Your task to perform on an android device: What's on my calendar tomorrow? Image 0: 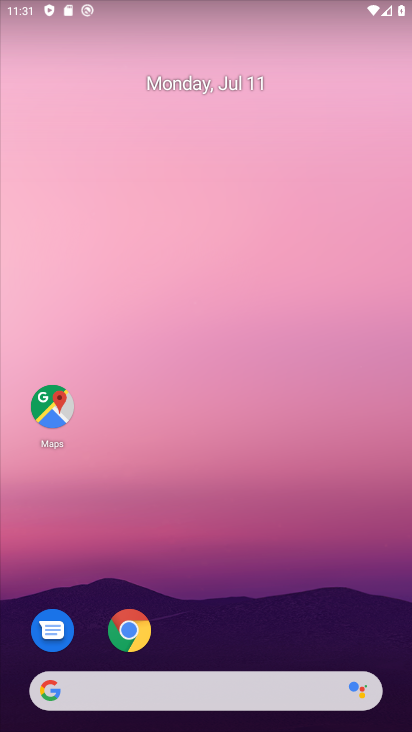
Step 0: drag from (209, 693) to (275, 178)
Your task to perform on an android device: What's on my calendar tomorrow? Image 1: 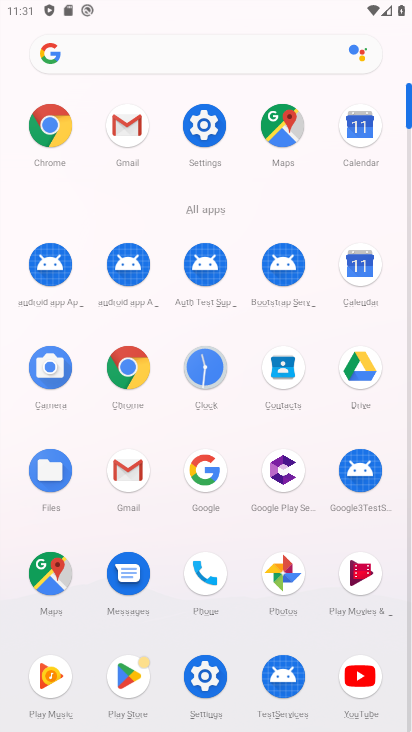
Step 1: click (359, 126)
Your task to perform on an android device: What's on my calendar tomorrow? Image 2: 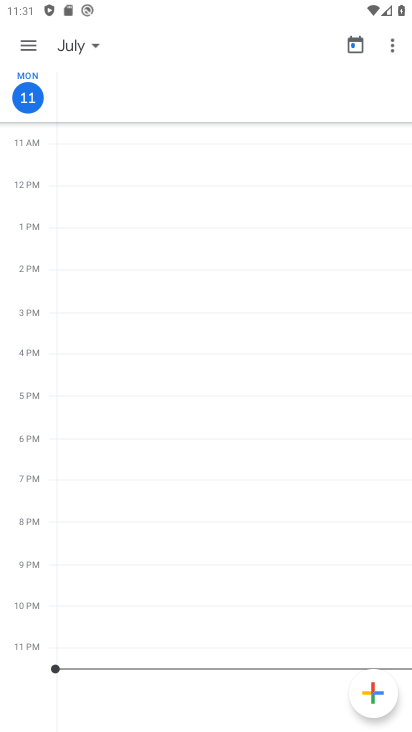
Step 2: click (356, 45)
Your task to perform on an android device: What's on my calendar tomorrow? Image 3: 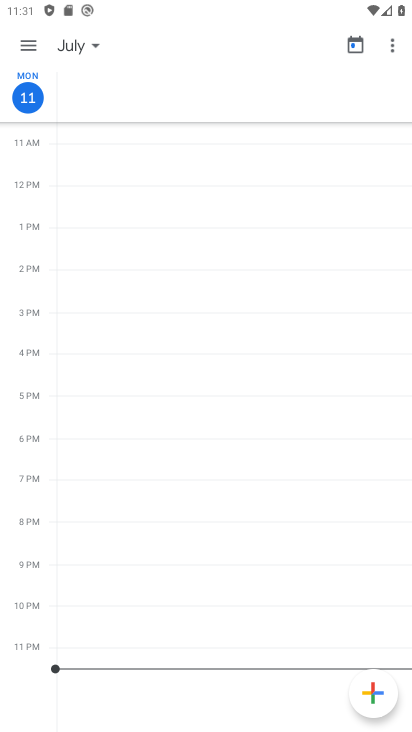
Step 3: click (95, 46)
Your task to perform on an android device: What's on my calendar tomorrow? Image 4: 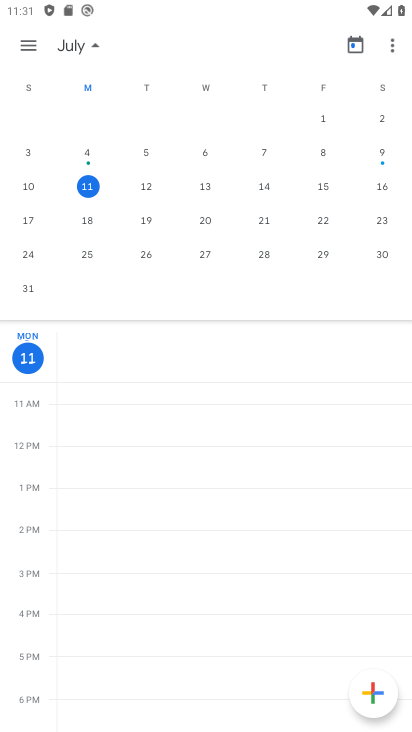
Step 4: click (148, 186)
Your task to perform on an android device: What's on my calendar tomorrow? Image 5: 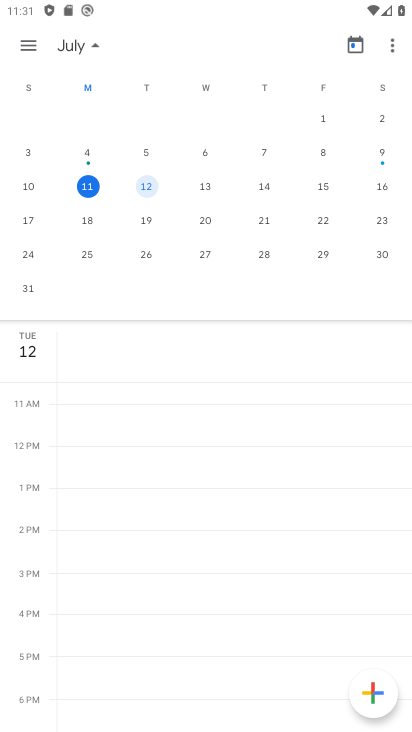
Step 5: task complete